Your task to perform on an android device: clear history in the chrome app Image 0: 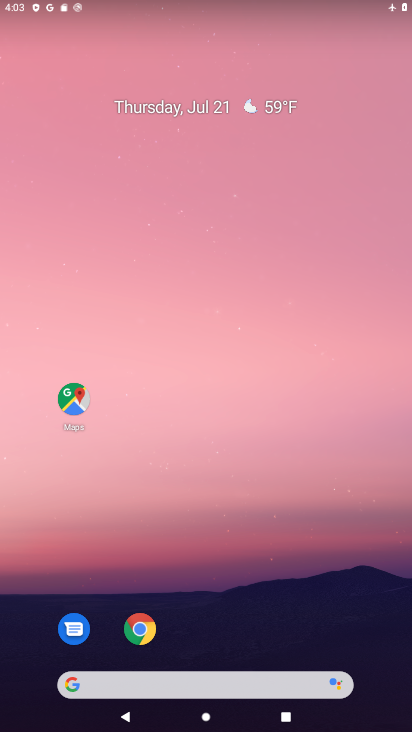
Step 0: click (137, 634)
Your task to perform on an android device: clear history in the chrome app Image 1: 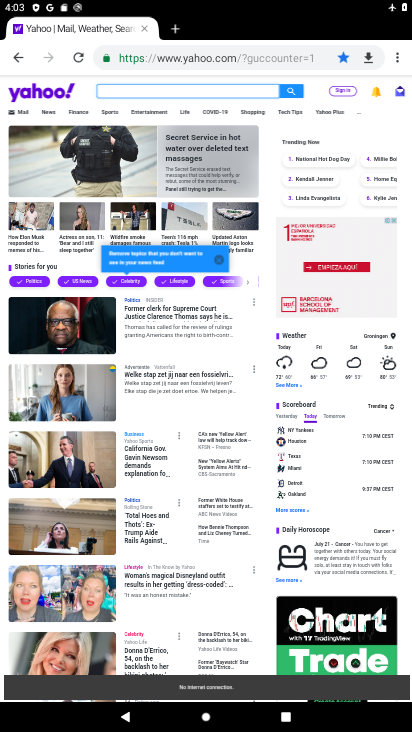
Step 1: click (394, 49)
Your task to perform on an android device: clear history in the chrome app Image 2: 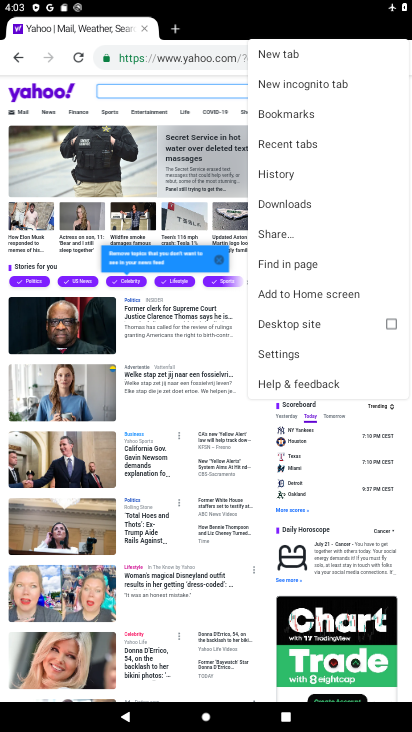
Step 2: click (279, 170)
Your task to perform on an android device: clear history in the chrome app Image 3: 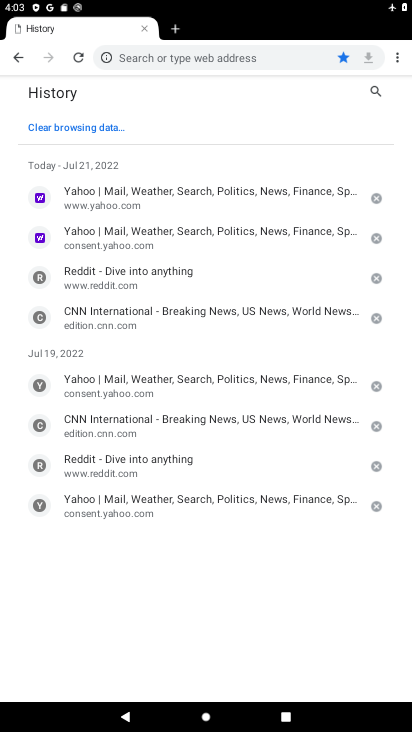
Step 3: click (66, 119)
Your task to perform on an android device: clear history in the chrome app Image 4: 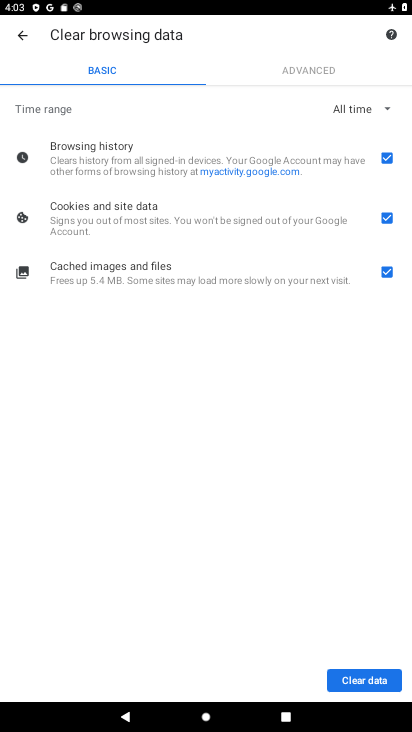
Step 4: click (382, 214)
Your task to perform on an android device: clear history in the chrome app Image 5: 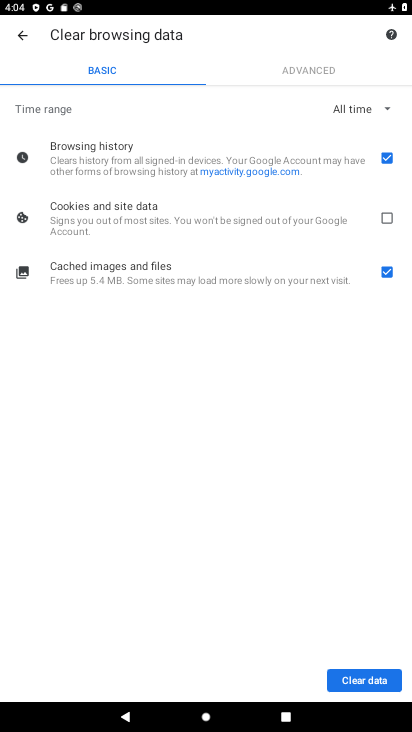
Step 5: click (382, 272)
Your task to perform on an android device: clear history in the chrome app Image 6: 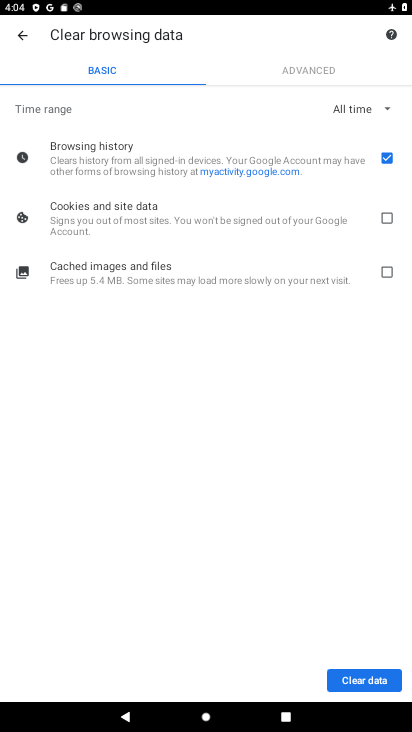
Step 6: click (367, 678)
Your task to perform on an android device: clear history in the chrome app Image 7: 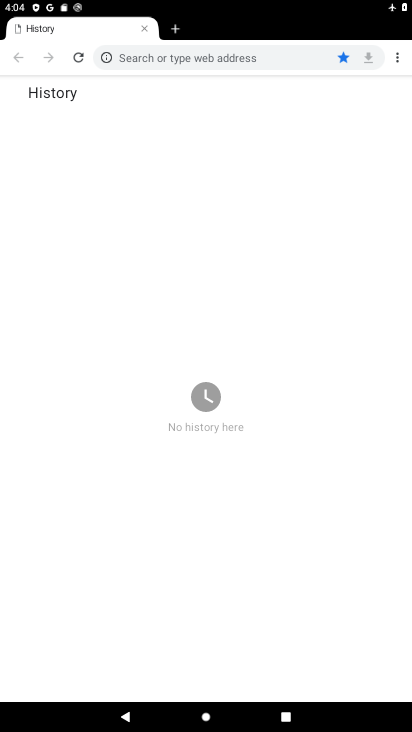
Step 7: task complete